Your task to perform on an android device: turn off data saver in the chrome app Image 0: 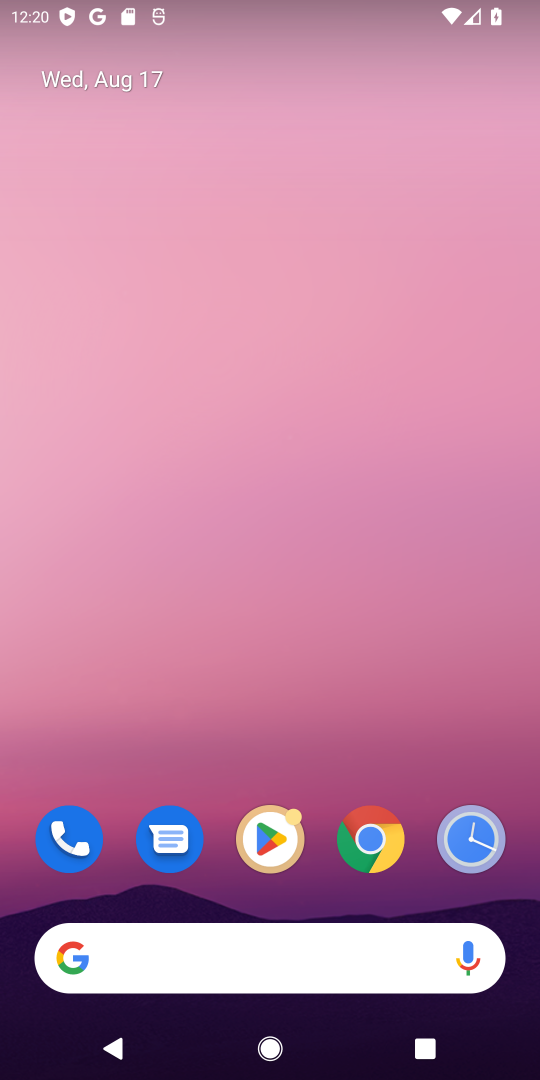
Step 0: click (368, 840)
Your task to perform on an android device: turn off data saver in the chrome app Image 1: 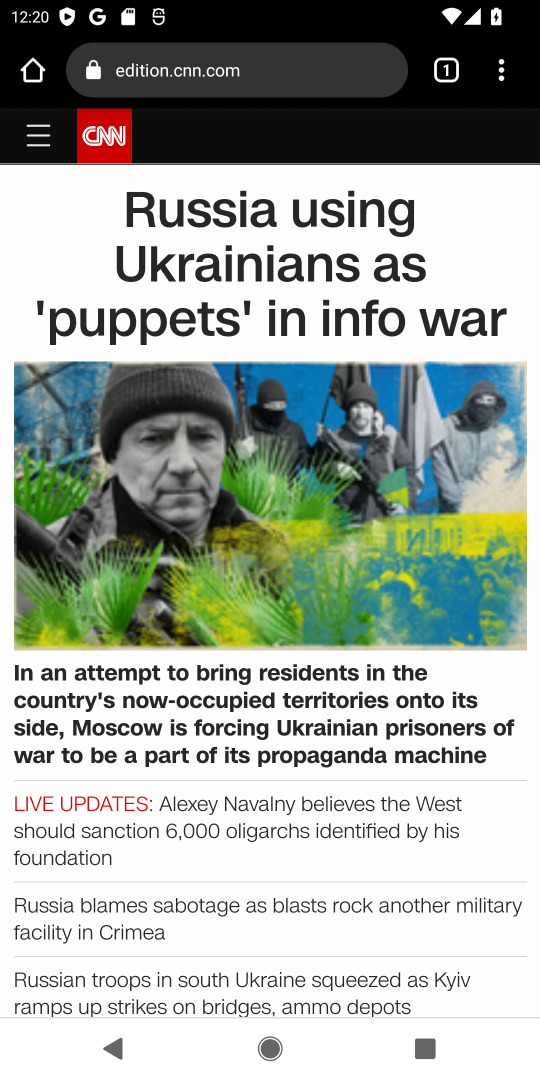
Step 1: drag from (506, 68) to (320, 915)
Your task to perform on an android device: turn off data saver in the chrome app Image 2: 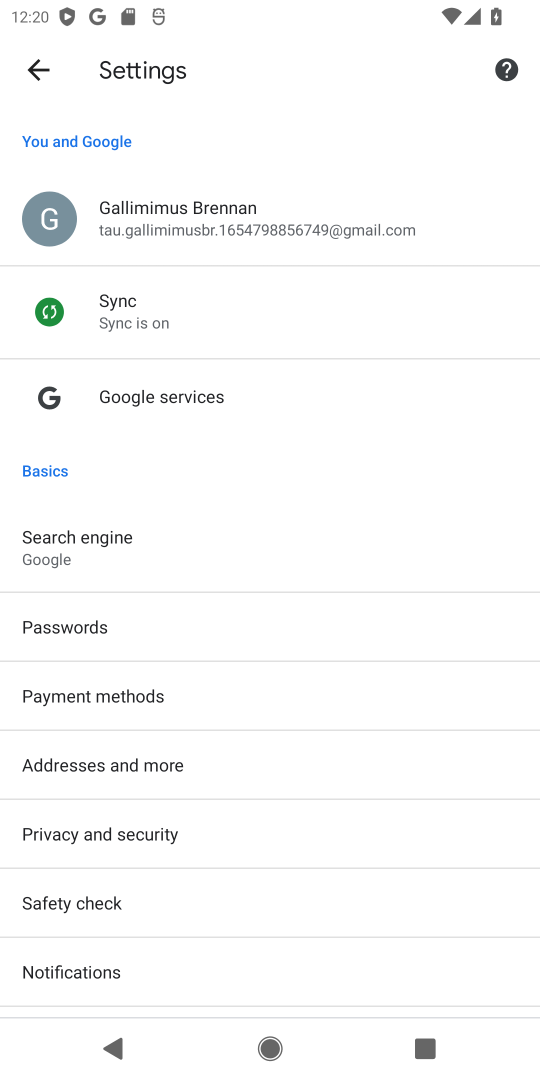
Step 2: drag from (155, 870) to (189, 738)
Your task to perform on an android device: turn off data saver in the chrome app Image 3: 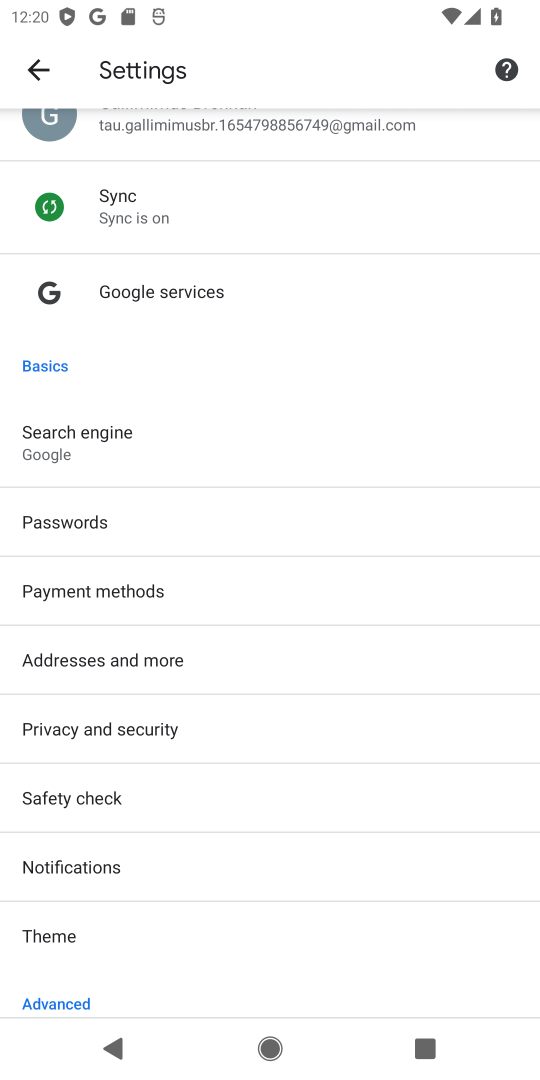
Step 3: drag from (142, 894) to (230, 679)
Your task to perform on an android device: turn off data saver in the chrome app Image 4: 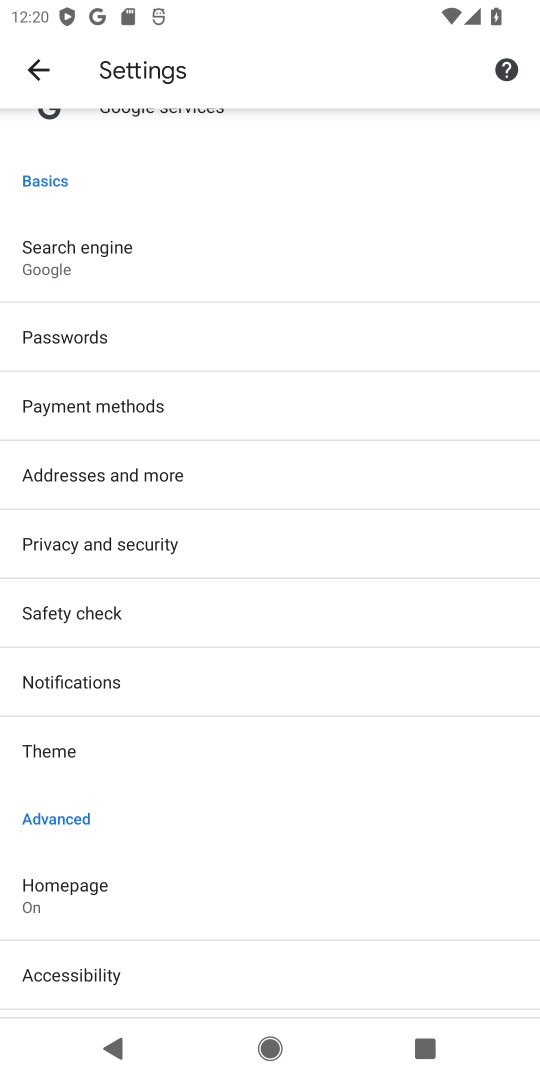
Step 4: drag from (141, 926) to (171, 815)
Your task to perform on an android device: turn off data saver in the chrome app Image 5: 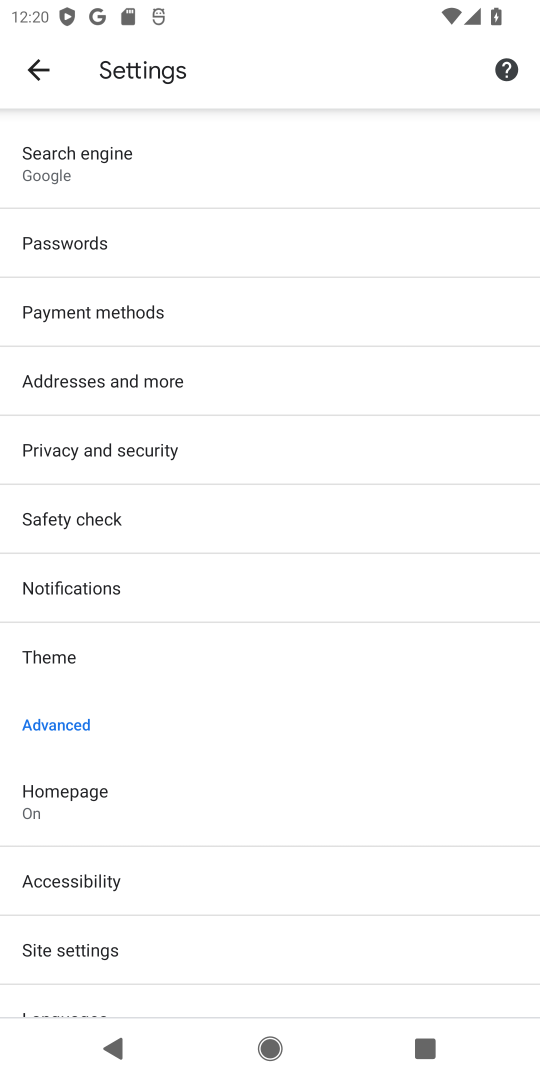
Step 5: drag from (134, 958) to (224, 801)
Your task to perform on an android device: turn off data saver in the chrome app Image 6: 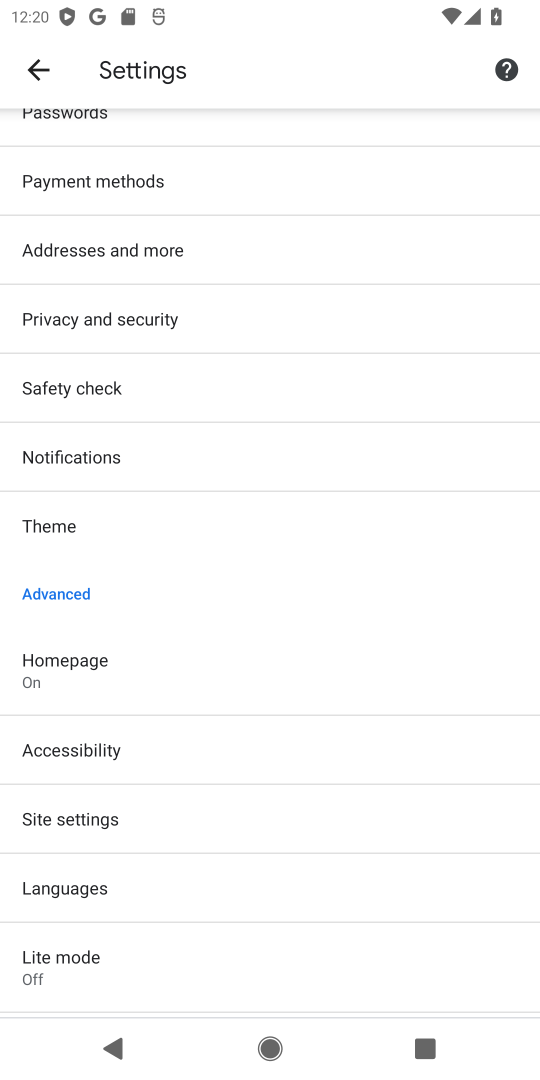
Step 6: click (113, 960)
Your task to perform on an android device: turn off data saver in the chrome app Image 7: 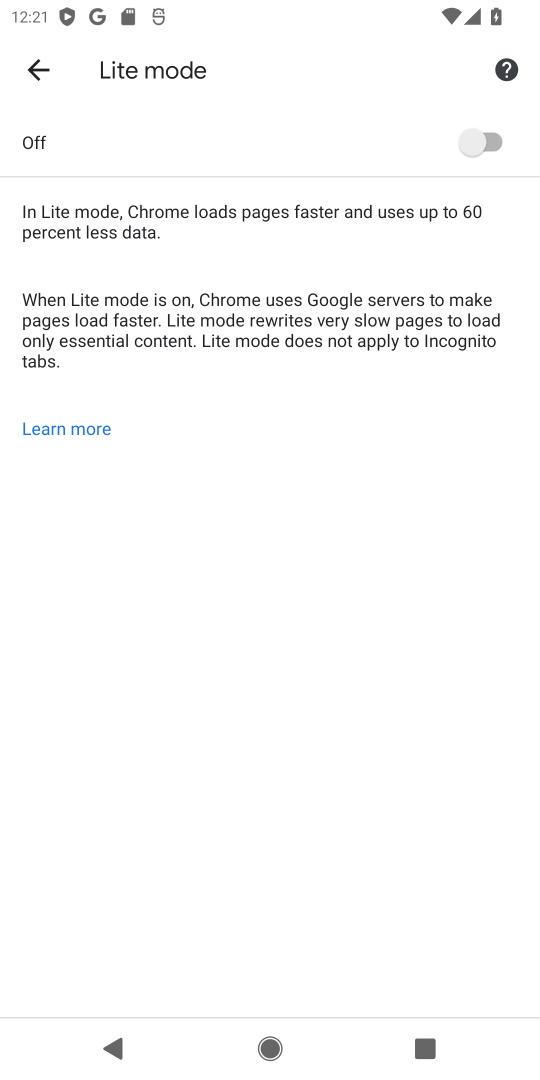
Step 7: task complete